Your task to perform on an android device: Open calendar and show me the second week of next month Image 0: 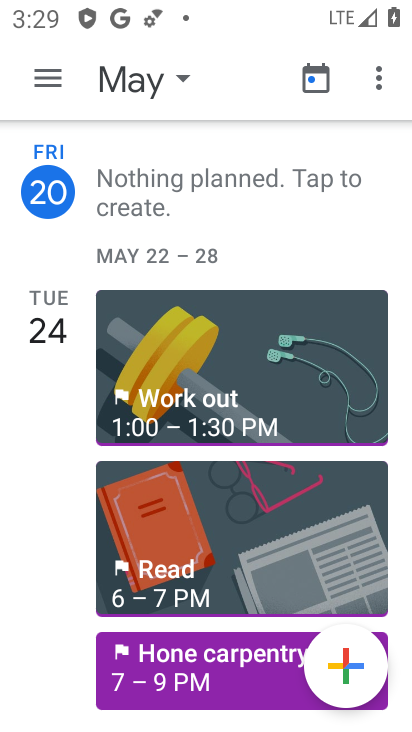
Step 0: press home button
Your task to perform on an android device: Open calendar and show me the second week of next month Image 1: 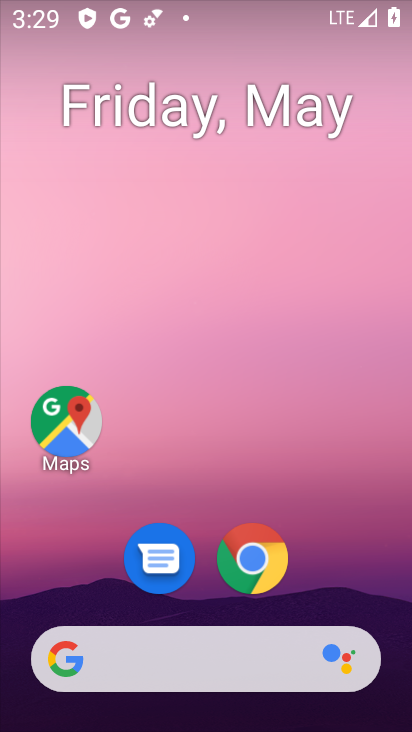
Step 1: drag from (218, 641) to (318, 197)
Your task to perform on an android device: Open calendar and show me the second week of next month Image 2: 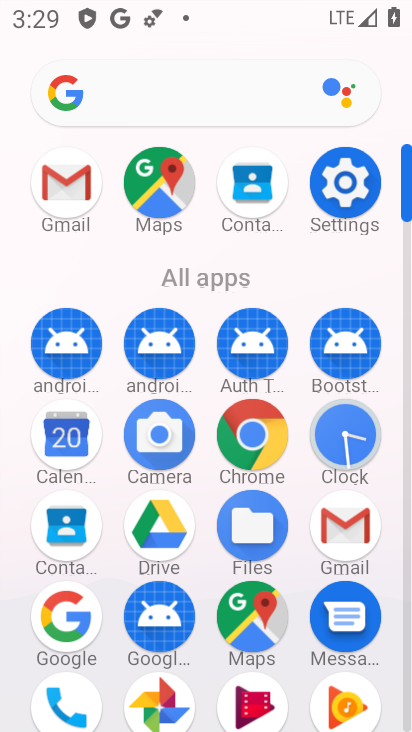
Step 2: click (64, 440)
Your task to perform on an android device: Open calendar and show me the second week of next month Image 3: 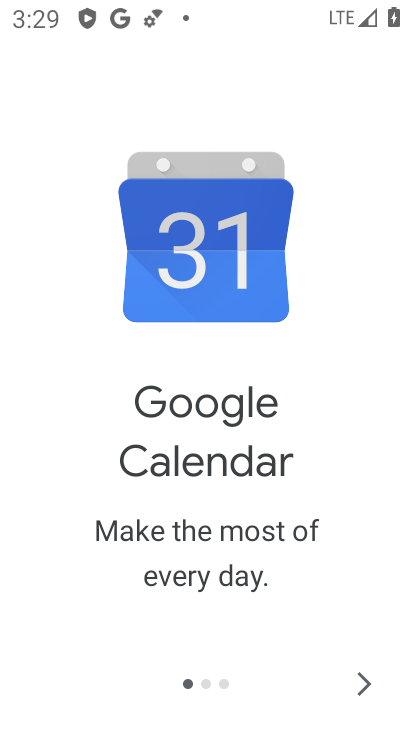
Step 3: click (373, 680)
Your task to perform on an android device: Open calendar and show me the second week of next month Image 4: 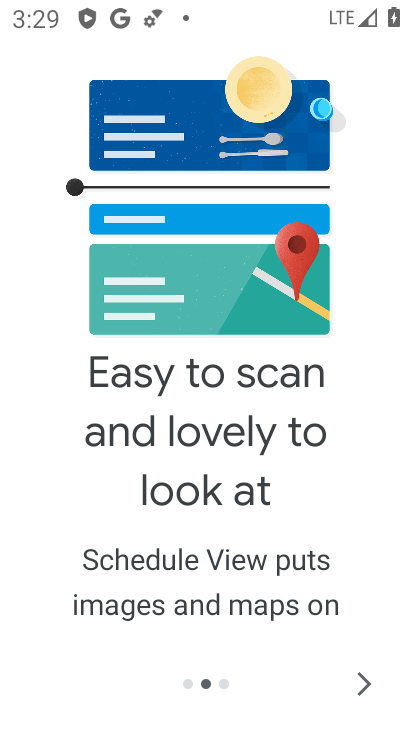
Step 4: click (373, 680)
Your task to perform on an android device: Open calendar and show me the second week of next month Image 5: 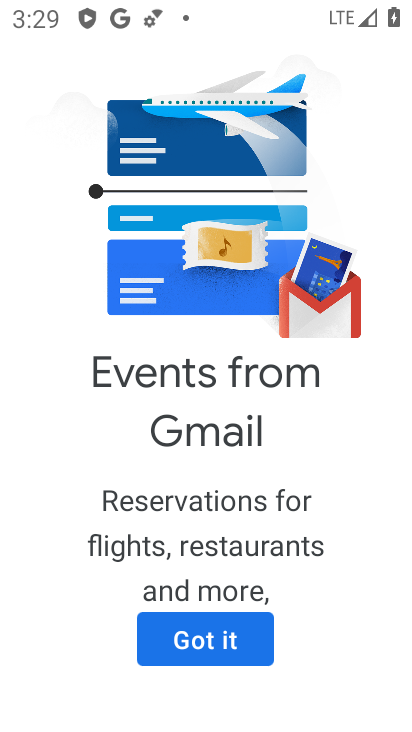
Step 5: click (242, 648)
Your task to perform on an android device: Open calendar and show me the second week of next month Image 6: 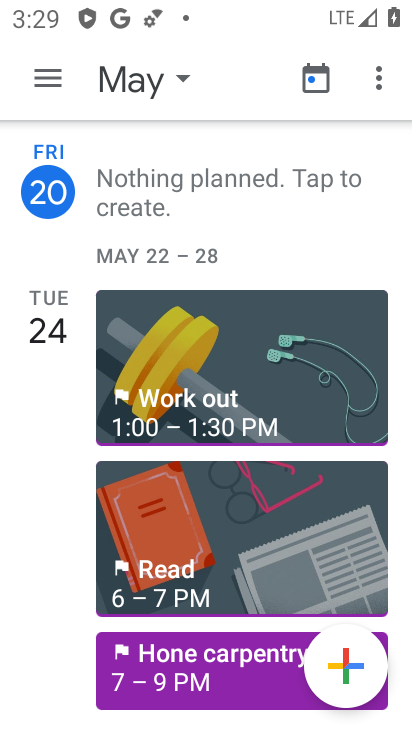
Step 6: click (122, 79)
Your task to perform on an android device: Open calendar and show me the second week of next month Image 7: 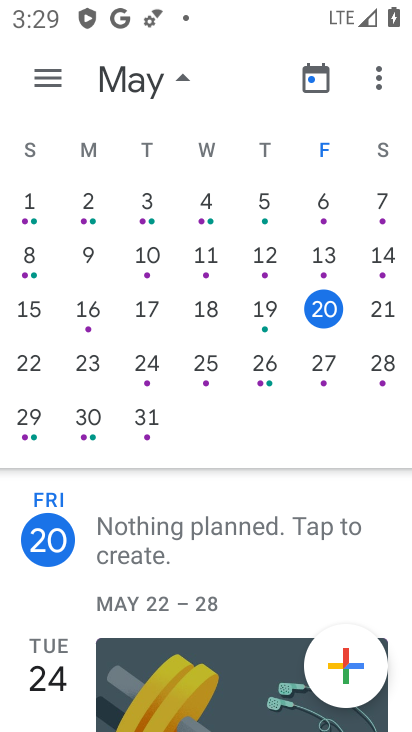
Step 7: drag from (360, 267) to (100, 299)
Your task to perform on an android device: Open calendar and show me the second week of next month Image 8: 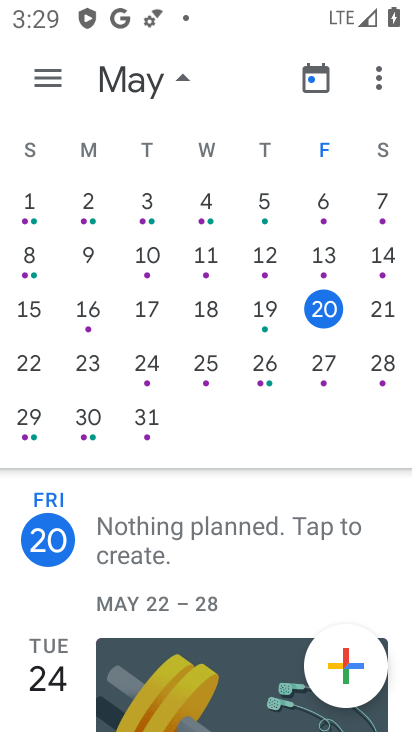
Step 8: drag from (385, 285) to (0, 296)
Your task to perform on an android device: Open calendar and show me the second week of next month Image 9: 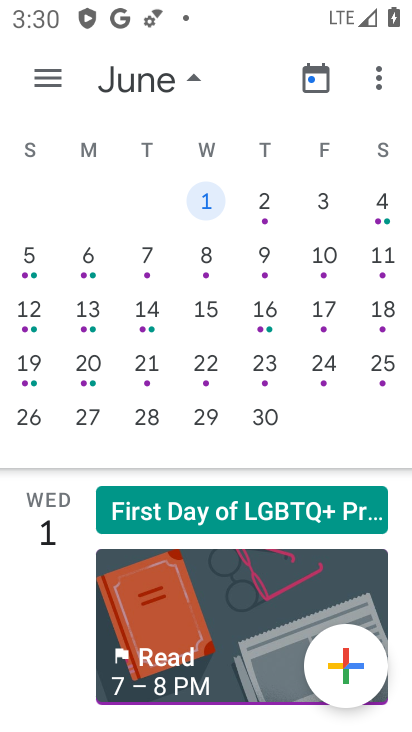
Step 9: click (32, 260)
Your task to perform on an android device: Open calendar and show me the second week of next month Image 10: 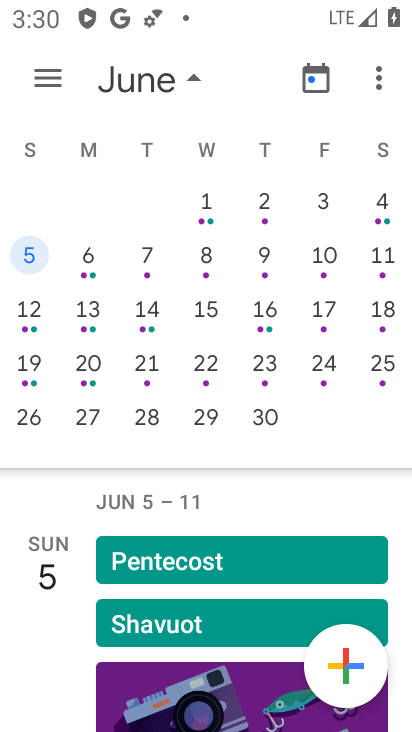
Step 10: click (43, 92)
Your task to perform on an android device: Open calendar and show me the second week of next month Image 11: 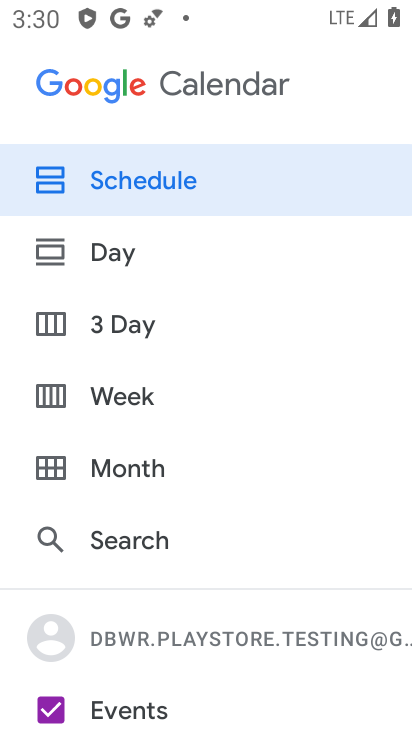
Step 11: click (116, 405)
Your task to perform on an android device: Open calendar and show me the second week of next month Image 12: 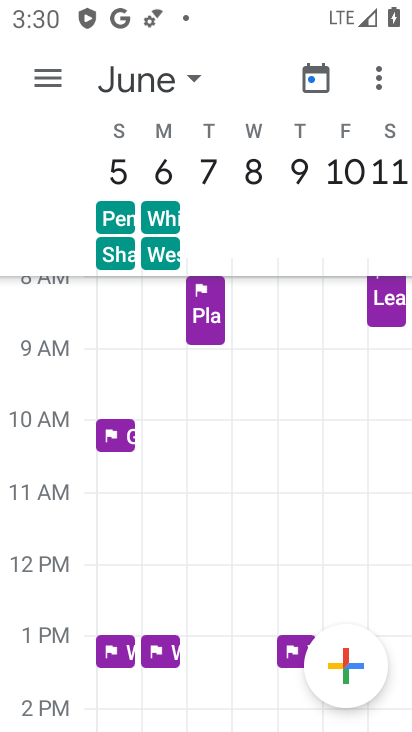
Step 12: task complete